Your task to perform on an android device: Is it going to rain this weekend? Image 0: 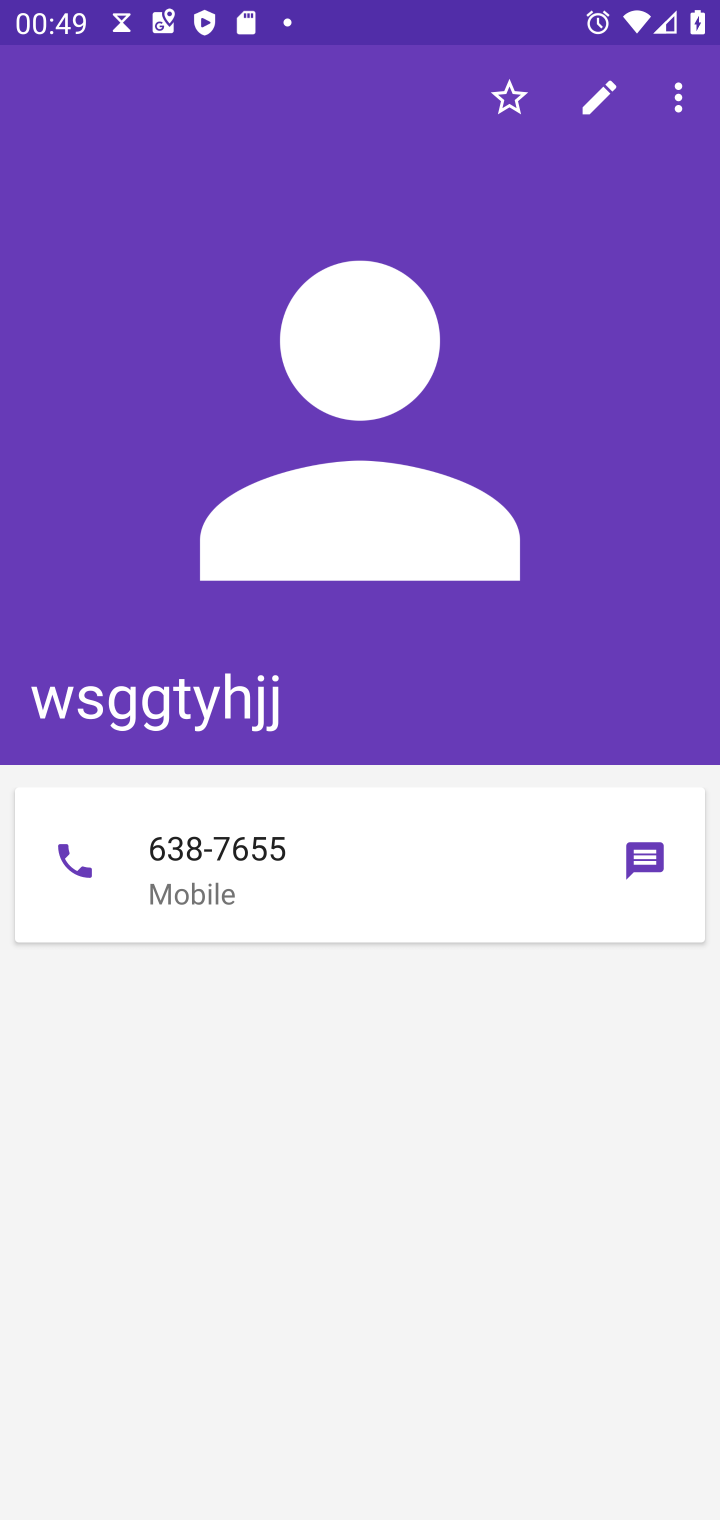
Step 0: press home button
Your task to perform on an android device: Is it going to rain this weekend? Image 1: 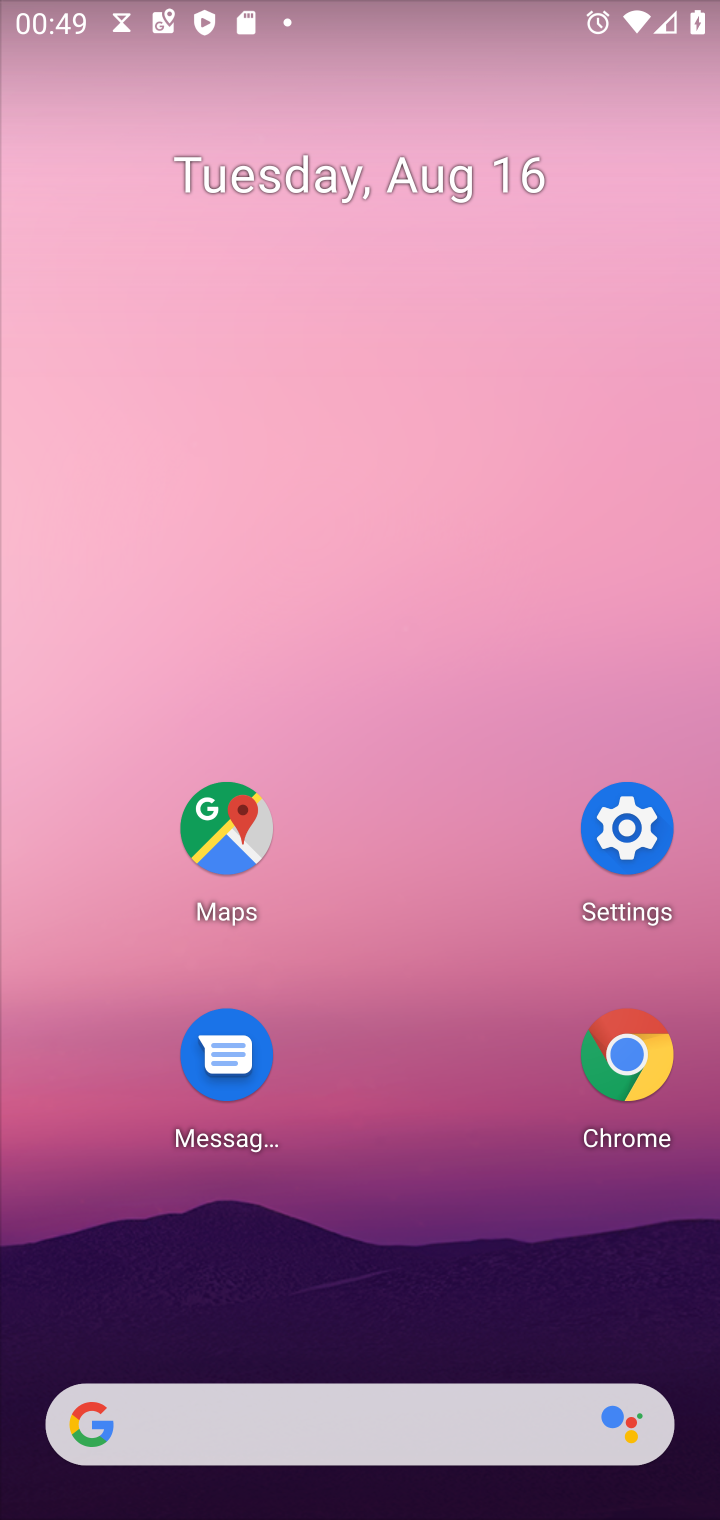
Step 1: drag from (509, 875) to (528, 520)
Your task to perform on an android device: Is it going to rain this weekend? Image 2: 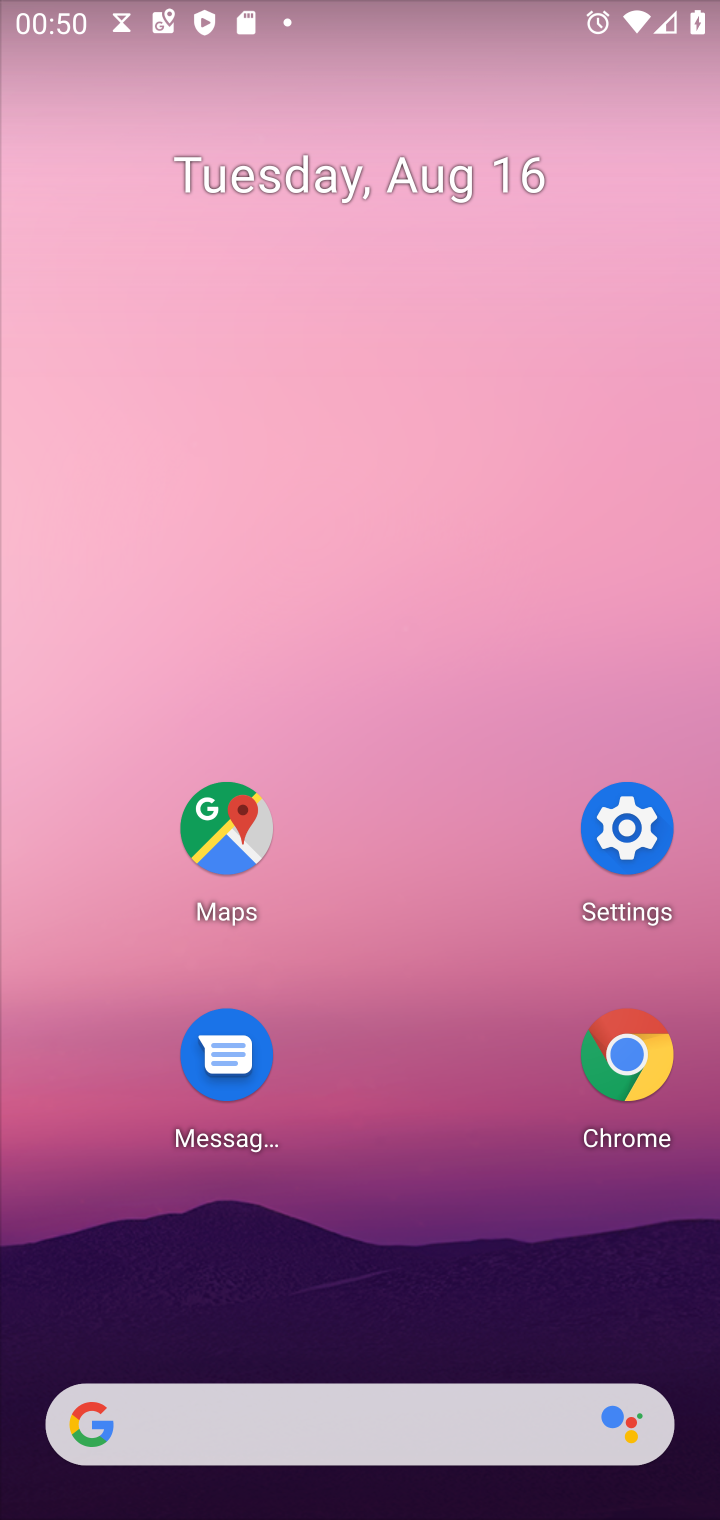
Step 2: click (329, 1413)
Your task to perform on an android device: Is it going to rain this weekend? Image 3: 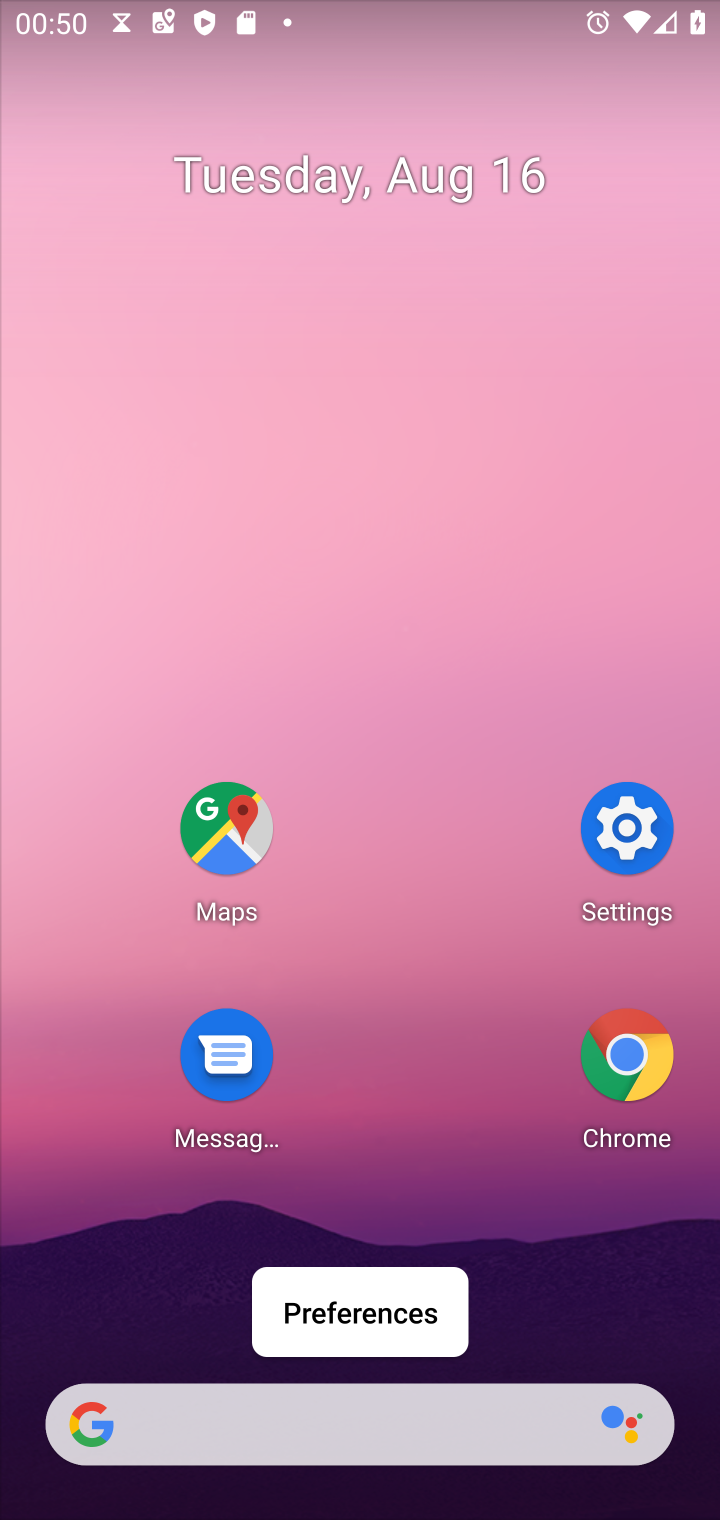
Step 3: click (329, 1418)
Your task to perform on an android device: Is it going to rain this weekend? Image 4: 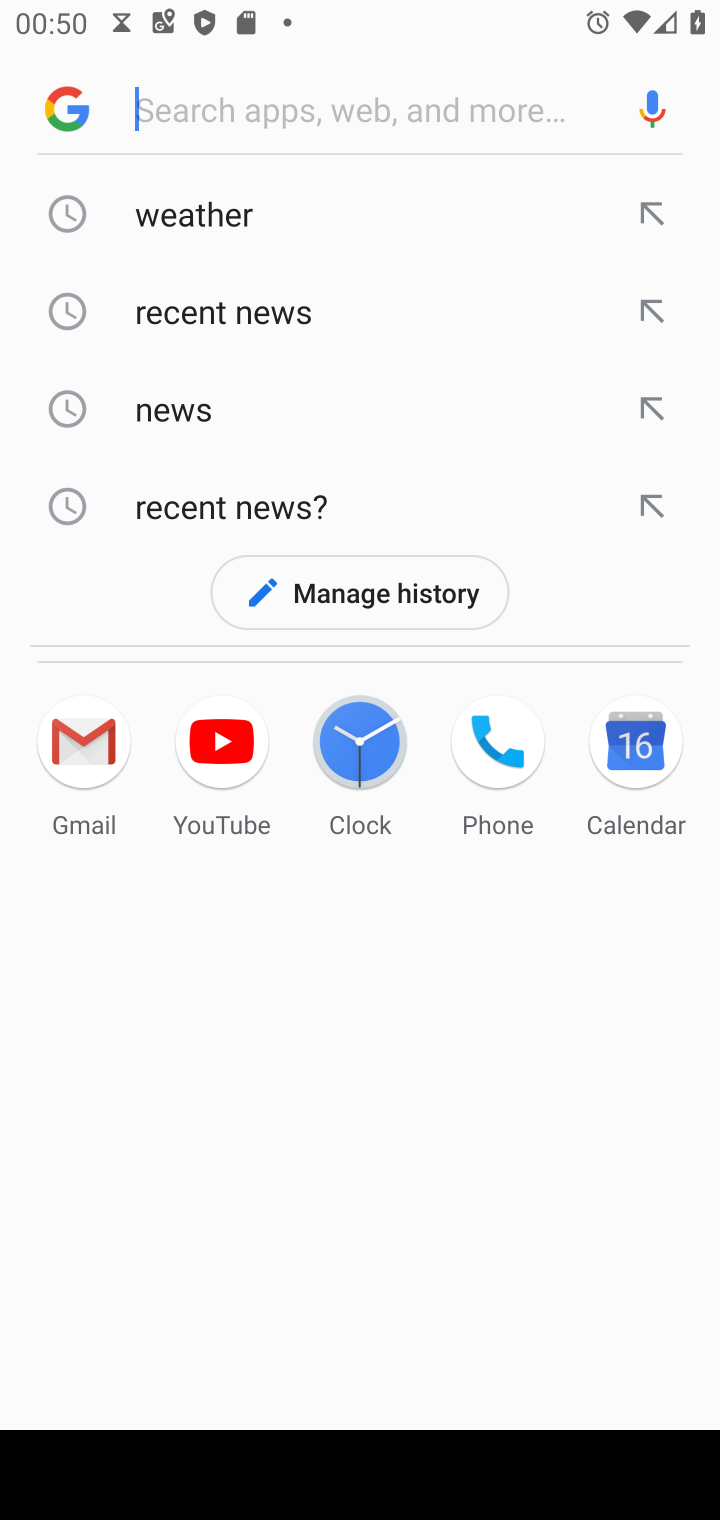
Step 4: click (194, 211)
Your task to perform on an android device: Is it going to rain this weekend? Image 5: 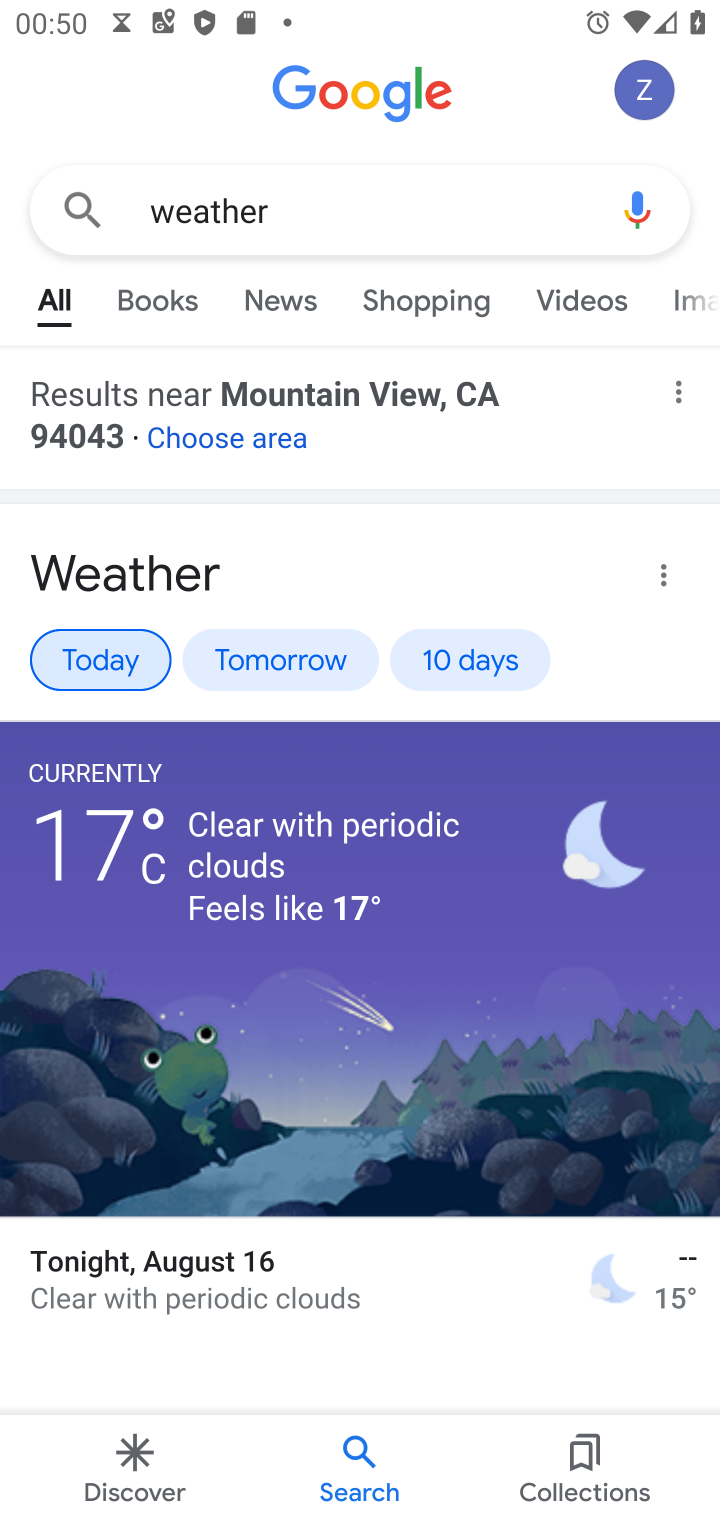
Step 5: click (474, 658)
Your task to perform on an android device: Is it going to rain this weekend? Image 6: 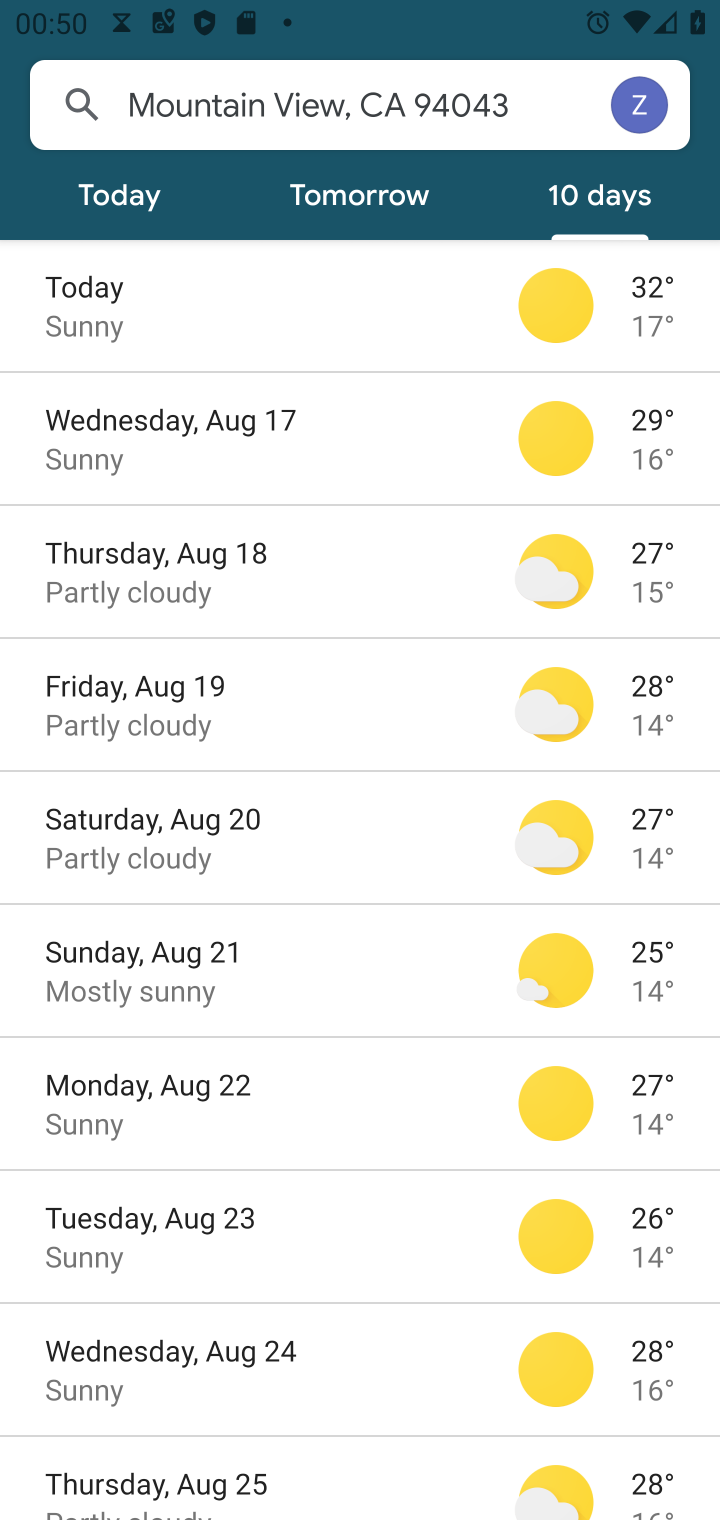
Step 6: click (177, 826)
Your task to perform on an android device: Is it going to rain this weekend? Image 7: 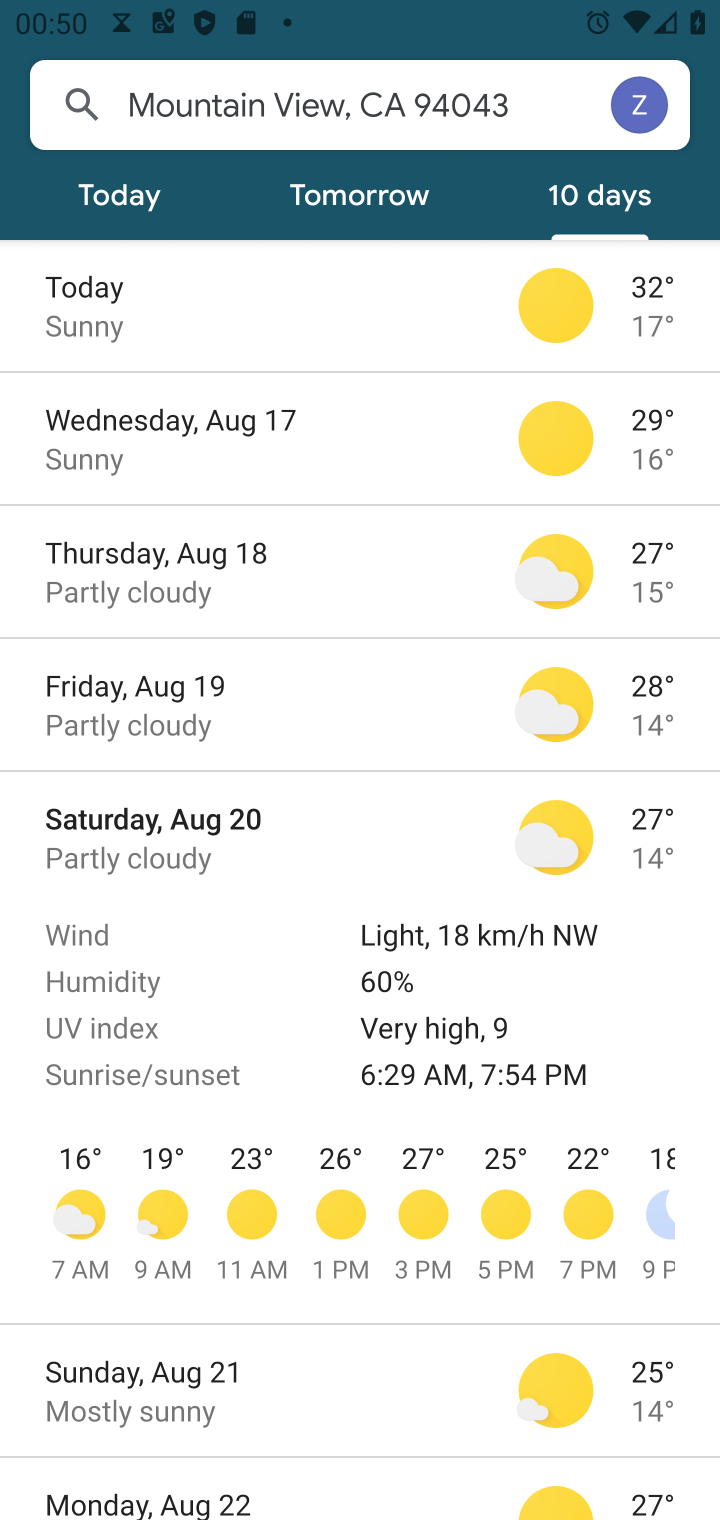
Step 7: task complete